Your task to perform on an android device: Open Youtube and go to the subscriptions tab Image 0: 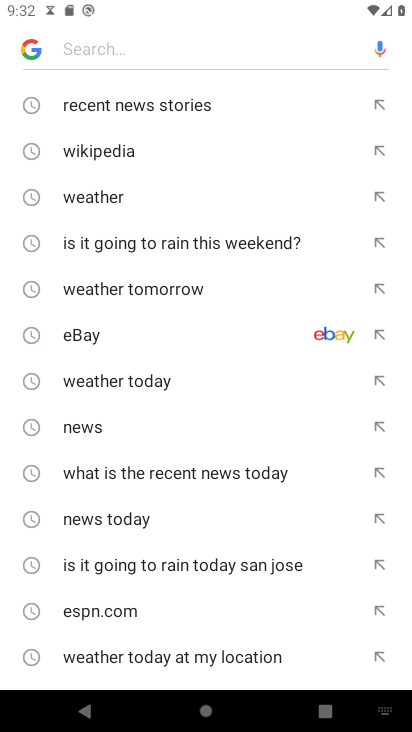
Step 0: press home button
Your task to perform on an android device: Open Youtube and go to the subscriptions tab Image 1: 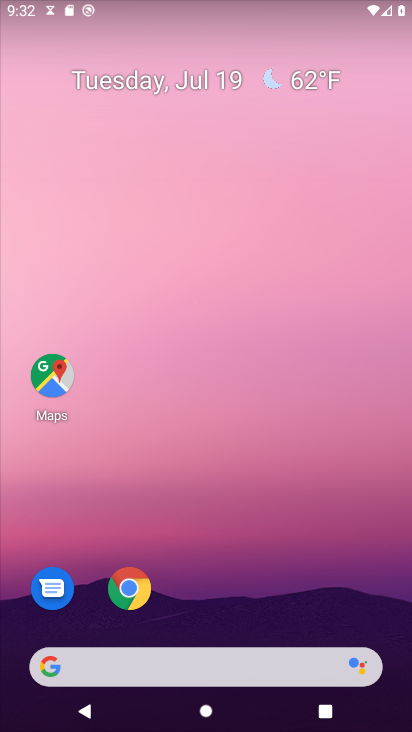
Step 1: drag from (151, 391) to (148, 142)
Your task to perform on an android device: Open Youtube and go to the subscriptions tab Image 2: 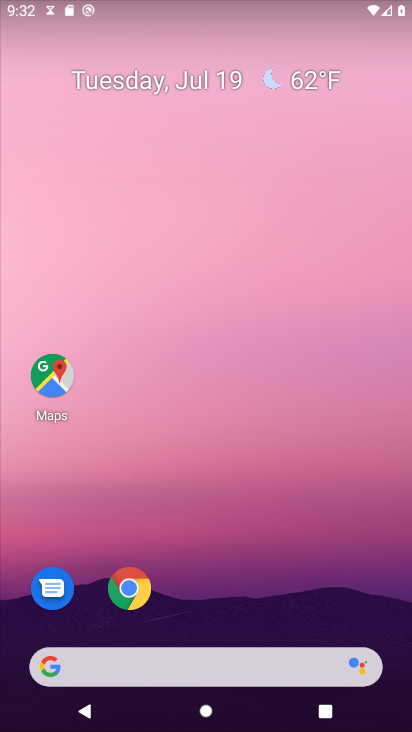
Step 2: drag from (189, 551) to (190, 45)
Your task to perform on an android device: Open Youtube and go to the subscriptions tab Image 3: 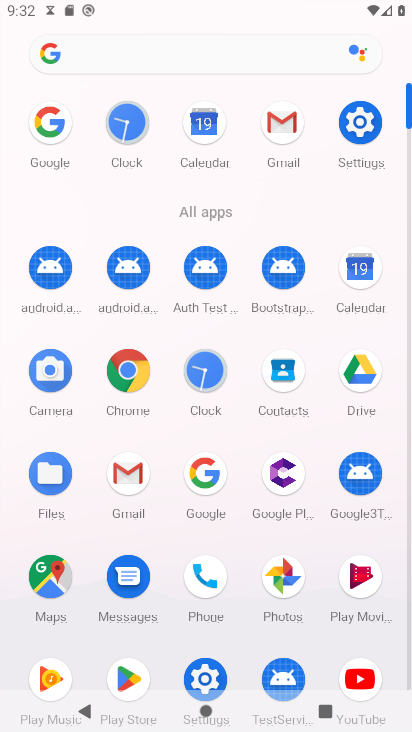
Step 3: click (363, 685)
Your task to perform on an android device: Open Youtube and go to the subscriptions tab Image 4: 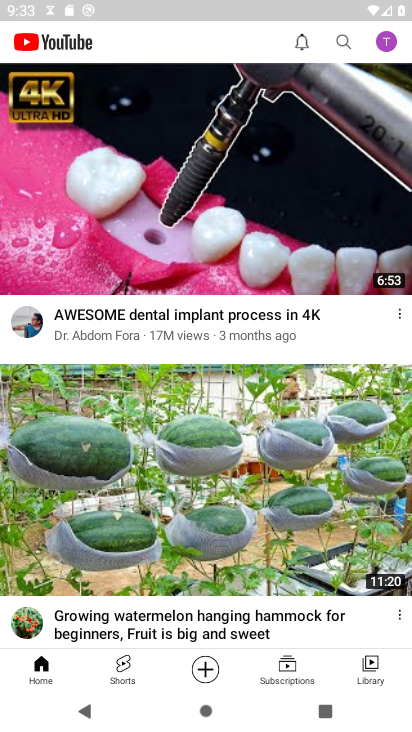
Step 4: click (291, 665)
Your task to perform on an android device: Open Youtube and go to the subscriptions tab Image 5: 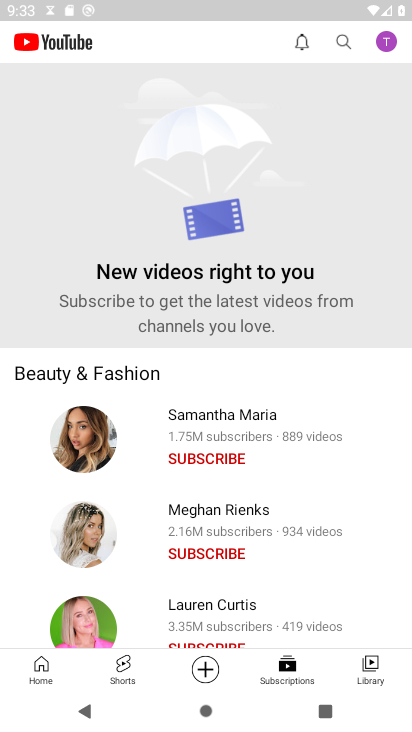
Step 5: task complete